Your task to perform on an android device: Toggle the flashlight Image 0: 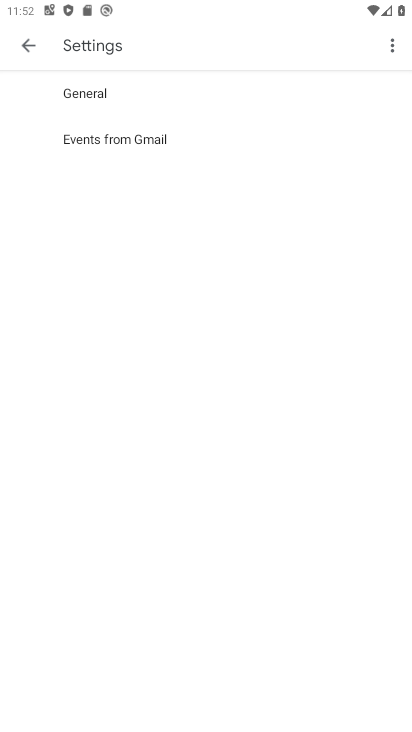
Step 0: press home button
Your task to perform on an android device: Toggle the flashlight Image 1: 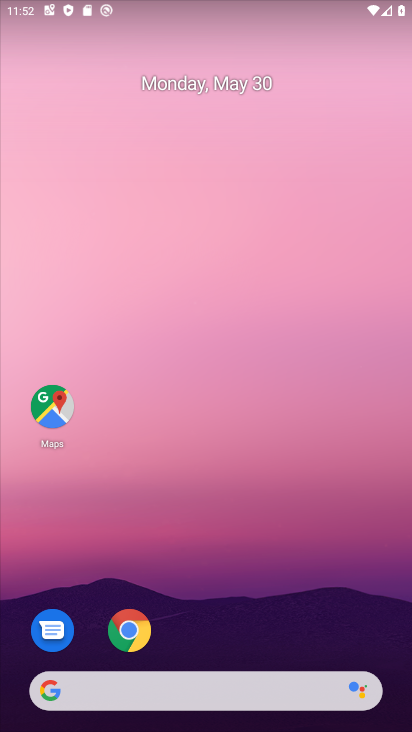
Step 1: task complete